Your task to perform on an android device: Show me popular videos on Youtube Image 0: 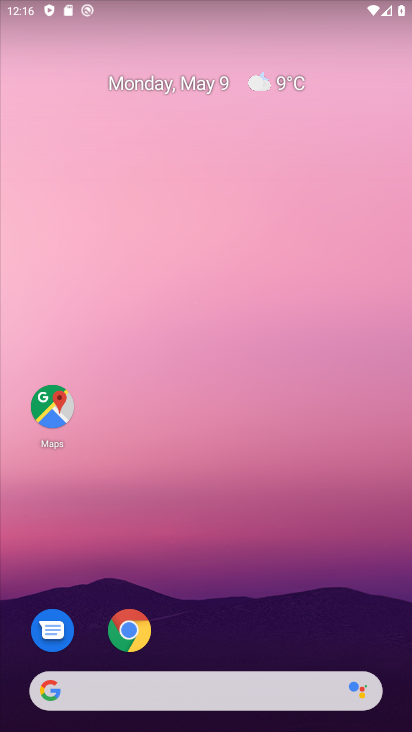
Step 0: drag from (313, 245) to (293, 77)
Your task to perform on an android device: Show me popular videos on Youtube Image 1: 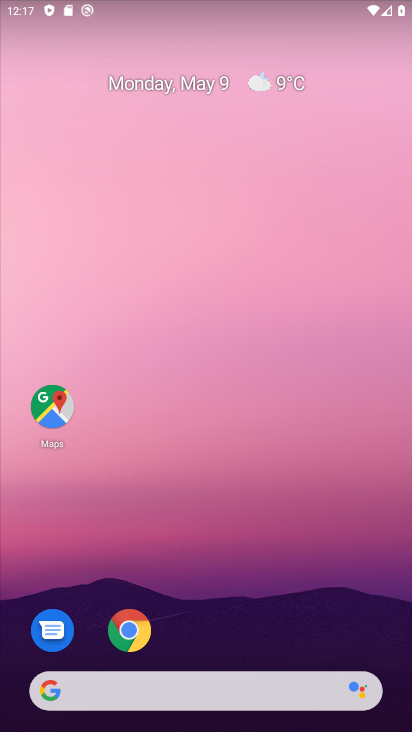
Step 1: drag from (226, 501) to (390, 300)
Your task to perform on an android device: Show me popular videos on Youtube Image 2: 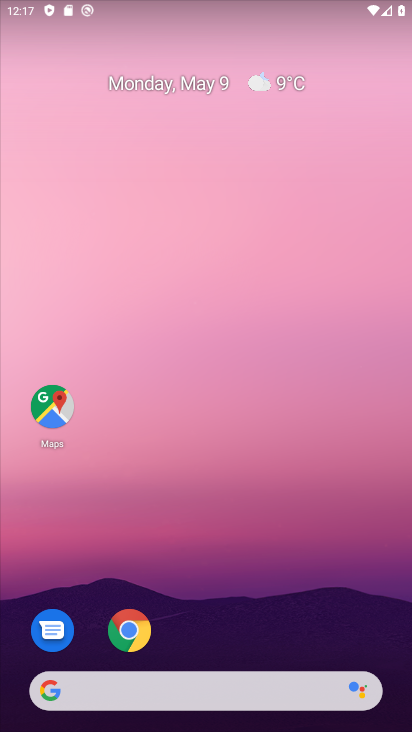
Step 2: drag from (266, 478) to (101, 33)
Your task to perform on an android device: Show me popular videos on Youtube Image 3: 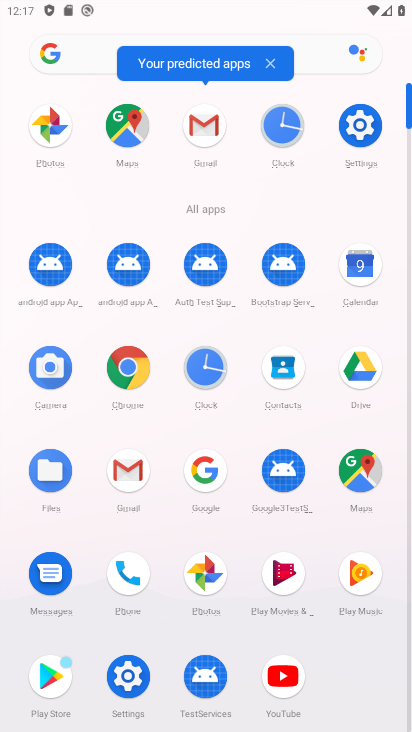
Step 3: click (283, 701)
Your task to perform on an android device: Show me popular videos on Youtube Image 4: 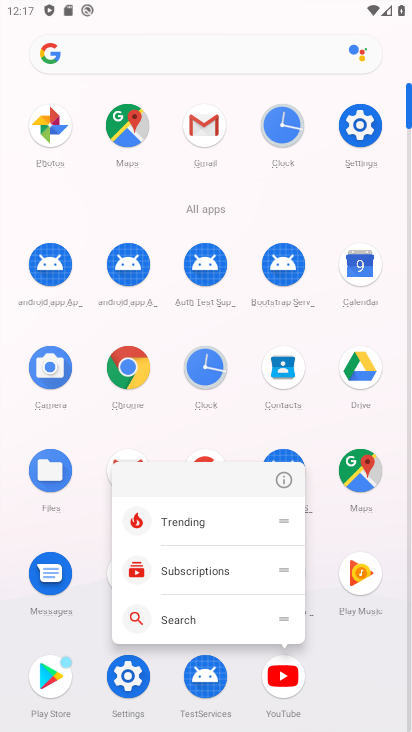
Step 4: click (279, 683)
Your task to perform on an android device: Show me popular videos on Youtube Image 5: 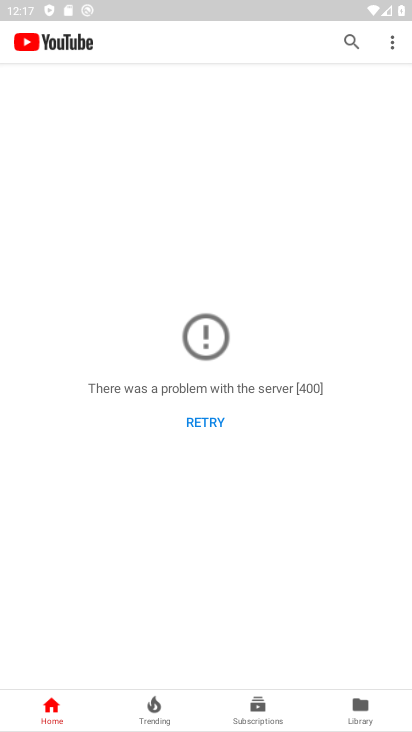
Step 5: click (207, 424)
Your task to perform on an android device: Show me popular videos on Youtube Image 6: 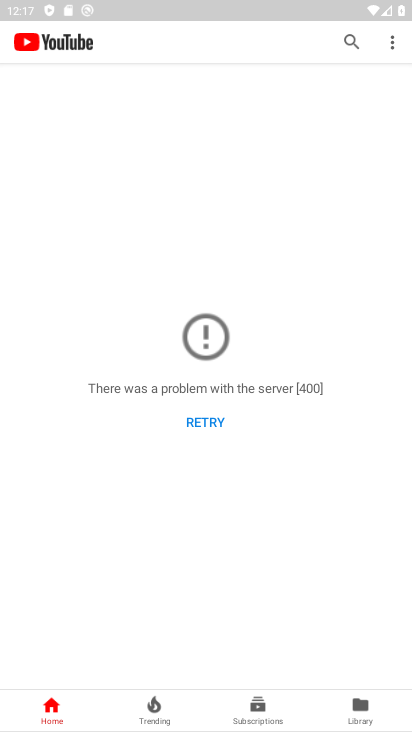
Step 6: click (157, 703)
Your task to perform on an android device: Show me popular videos on Youtube Image 7: 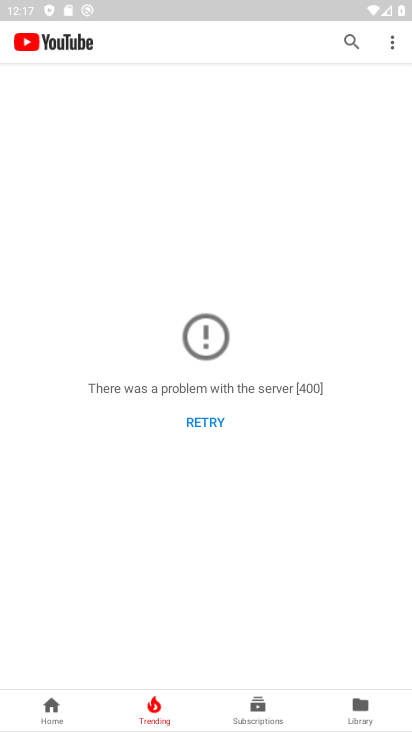
Step 7: click (277, 715)
Your task to perform on an android device: Show me popular videos on Youtube Image 8: 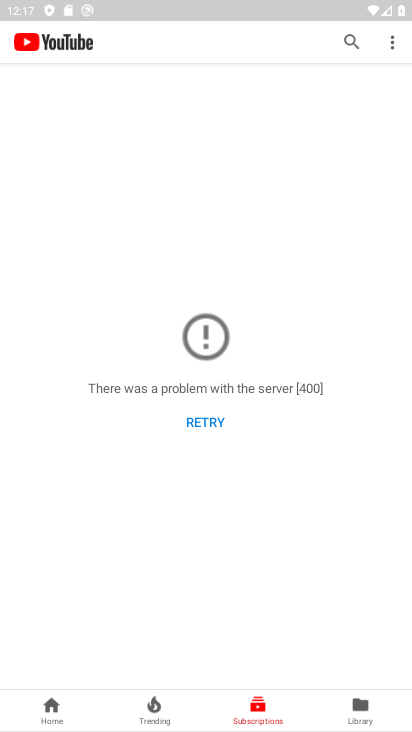
Step 8: click (384, 723)
Your task to perform on an android device: Show me popular videos on Youtube Image 9: 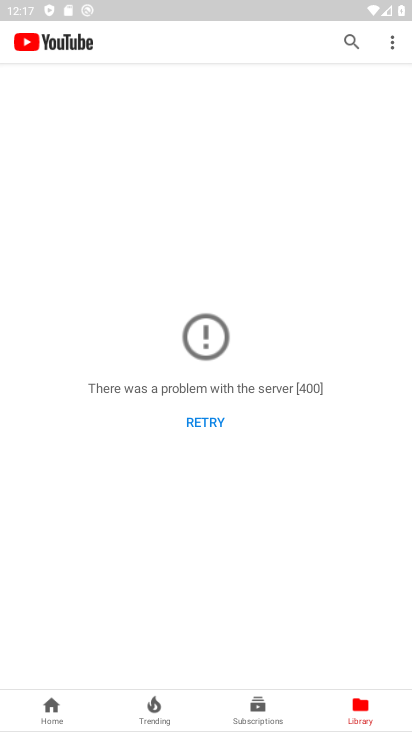
Step 9: task complete